Your task to perform on an android device: toggle airplane mode Image 0: 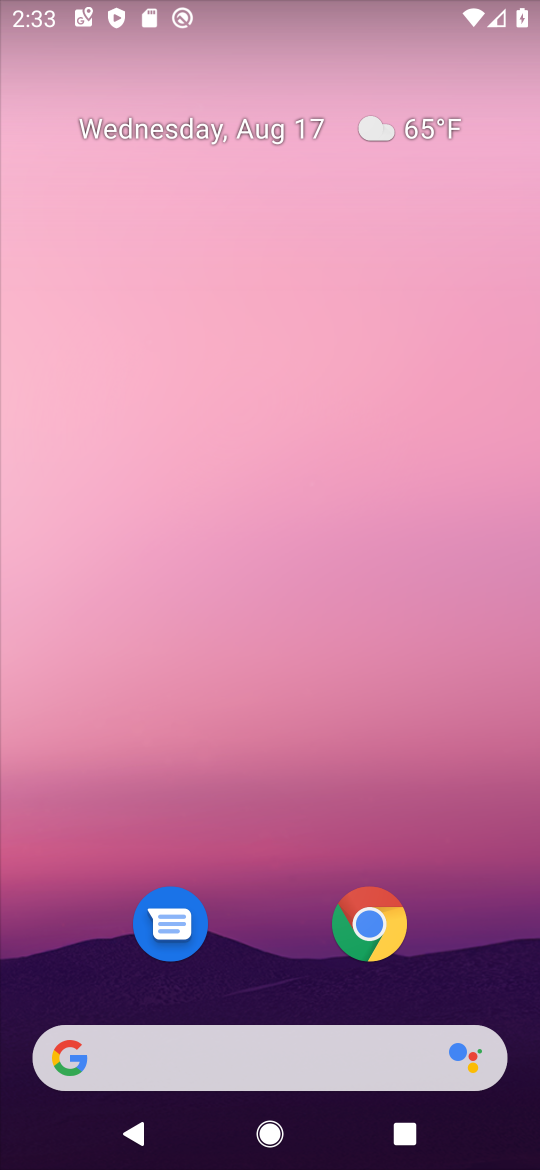
Step 0: drag from (174, 1050) to (239, 173)
Your task to perform on an android device: toggle airplane mode Image 1: 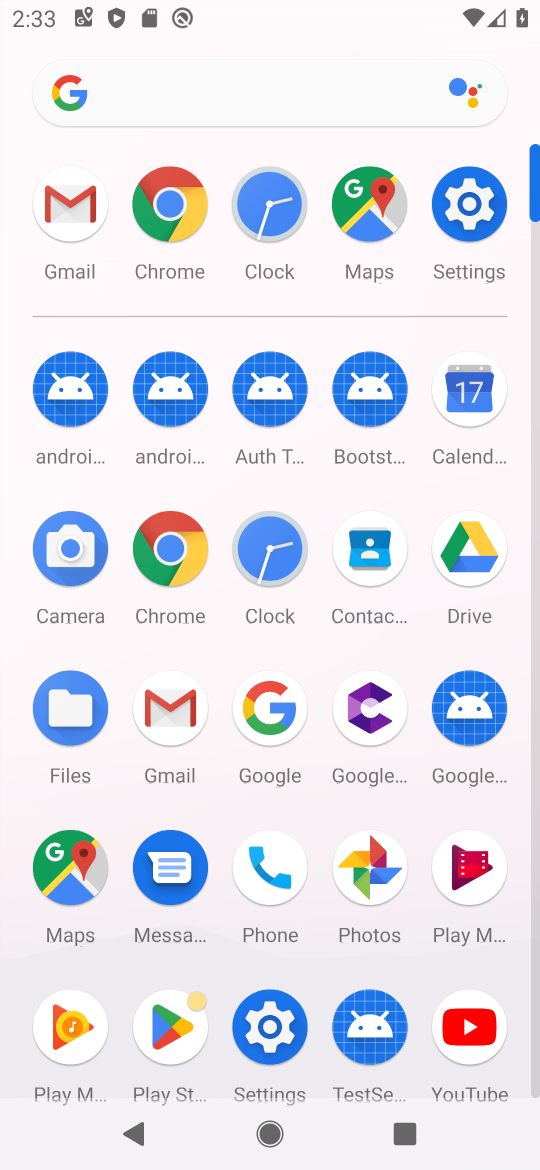
Step 1: click (465, 203)
Your task to perform on an android device: toggle airplane mode Image 2: 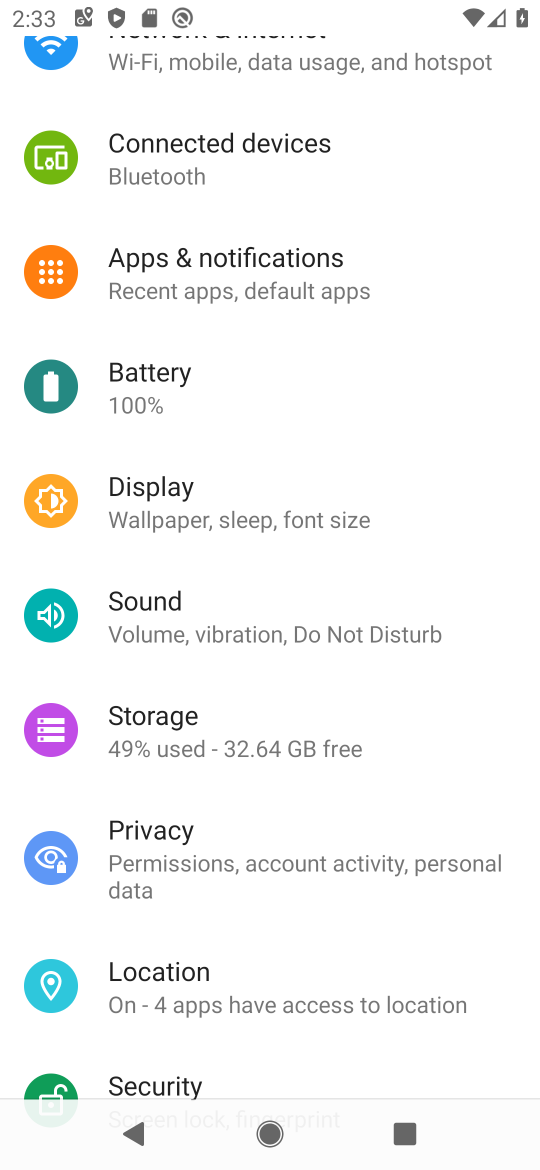
Step 2: drag from (323, 213) to (336, 500)
Your task to perform on an android device: toggle airplane mode Image 3: 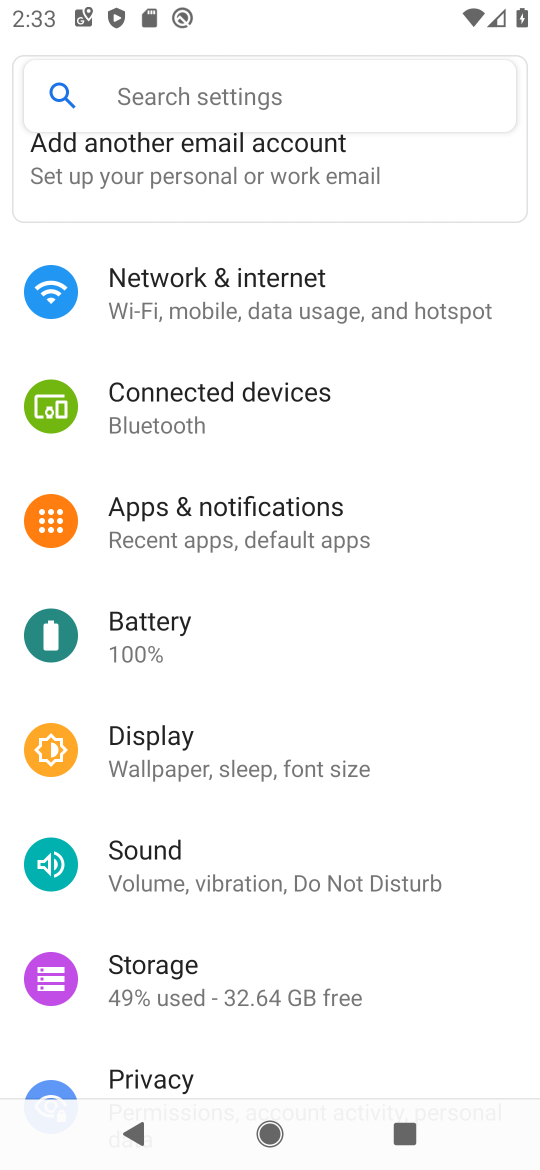
Step 3: drag from (265, 349) to (289, 562)
Your task to perform on an android device: toggle airplane mode Image 4: 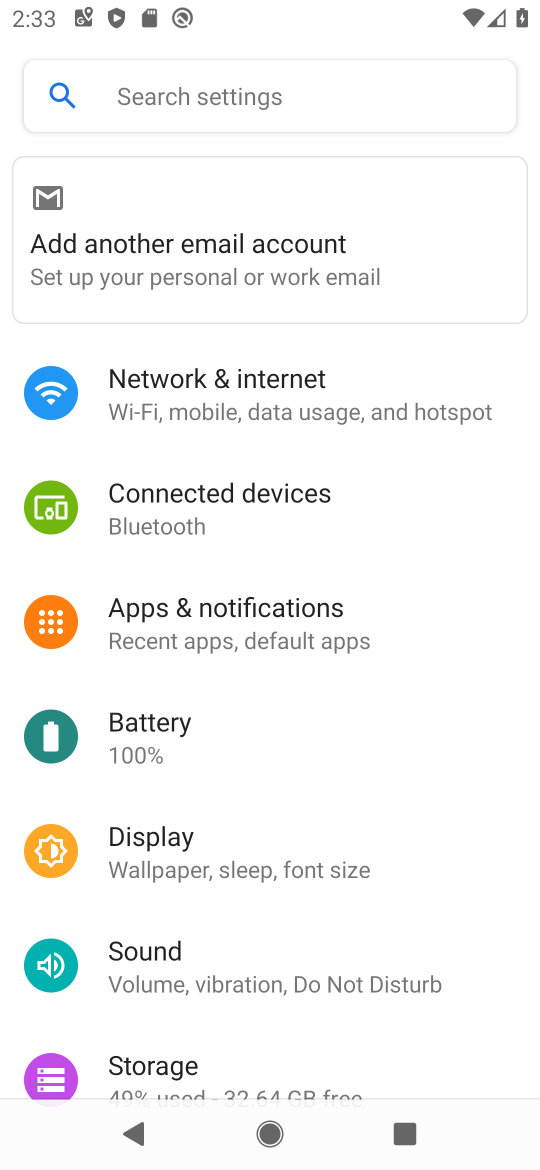
Step 4: click (253, 420)
Your task to perform on an android device: toggle airplane mode Image 5: 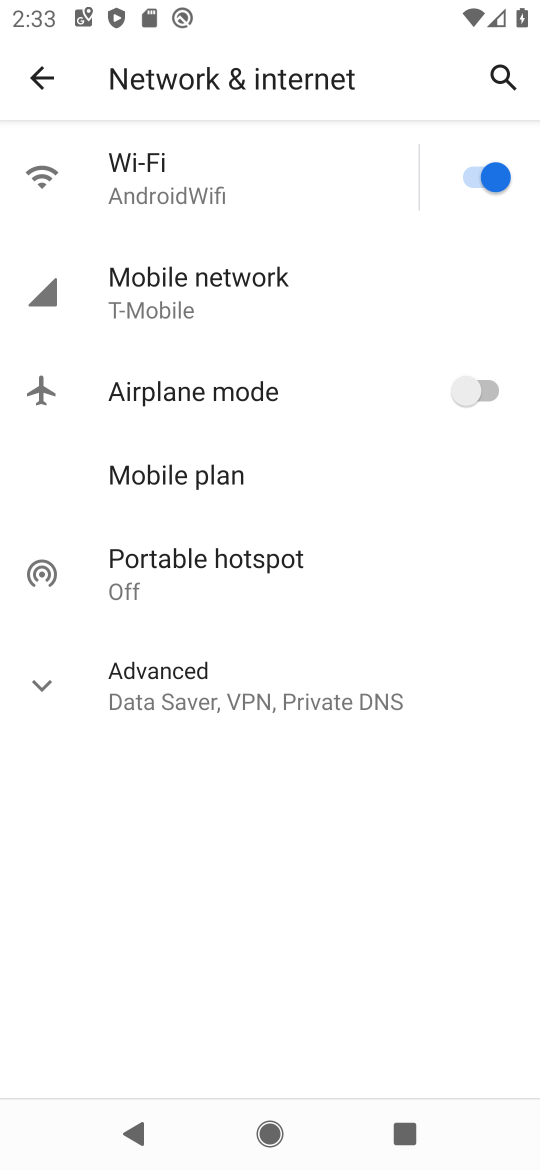
Step 5: click (463, 399)
Your task to perform on an android device: toggle airplane mode Image 6: 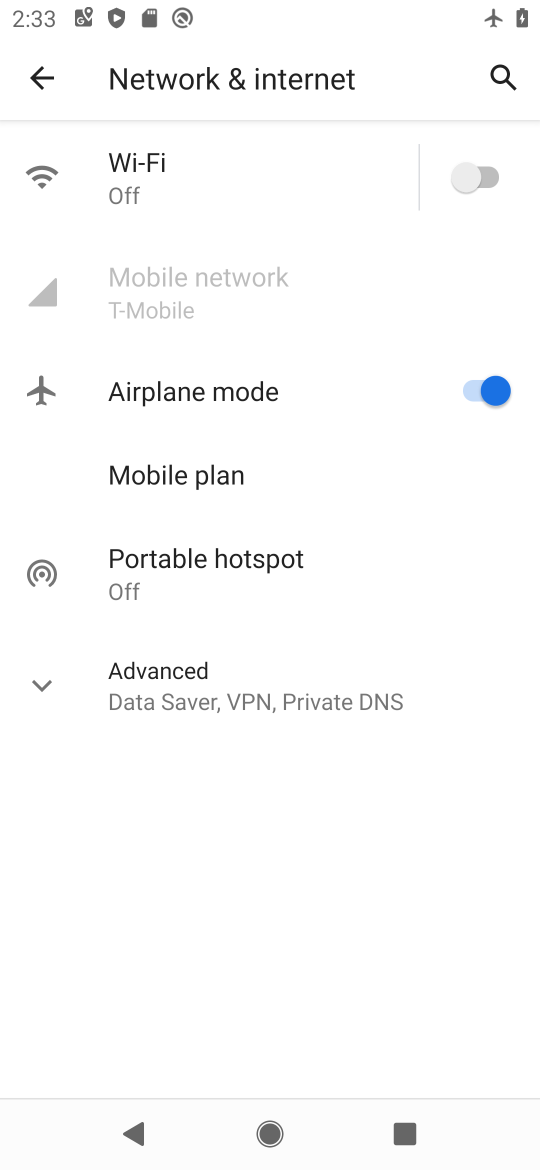
Step 6: task complete